Your task to perform on an android device: open wifi settings Image 0: 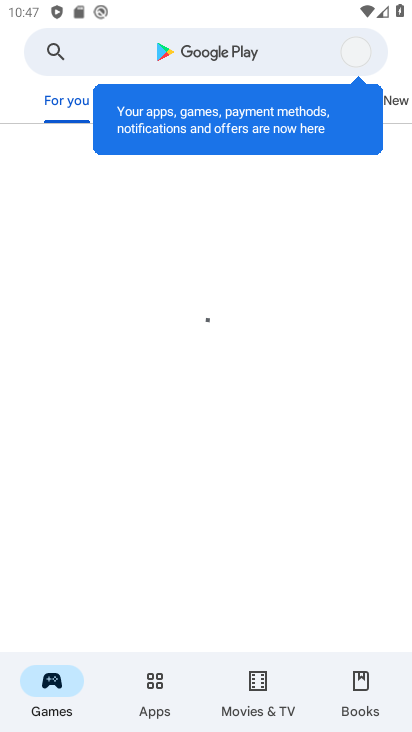
Step 0: press home button
Your task to perform on an android device: open wifi settings Image 1: 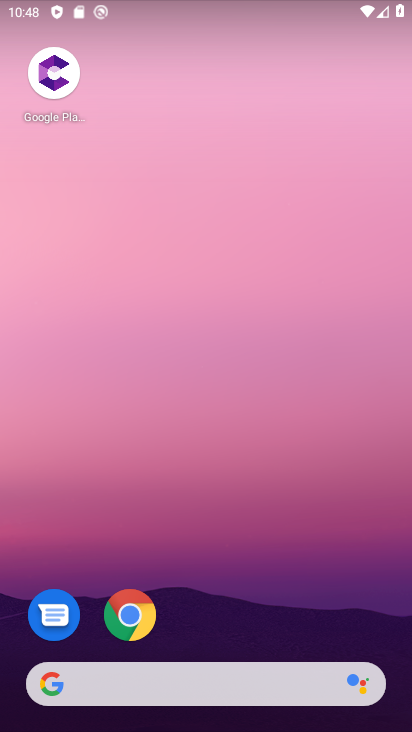
Step 1: drag from (213, 636) to (236, 166)
Your task to perform on an android device: open wifi settings Image 2: 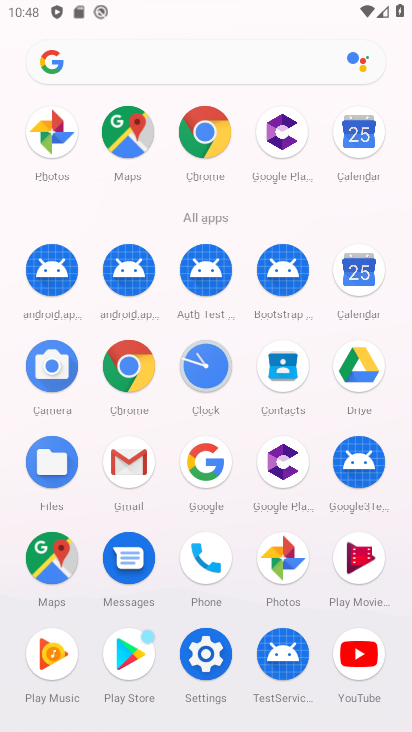
Step 2: click (214, 648)
Your task to perform on an android device: open wifi settings Image 3: 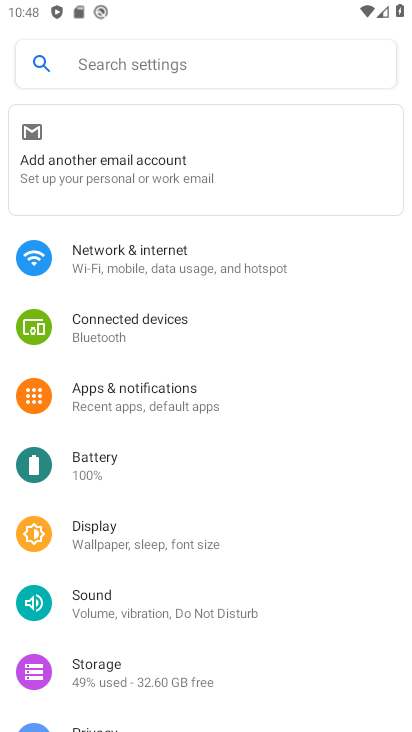
Step 3: click (201, 273)
Your task to perform on an android device: open wifi settings Image 4: 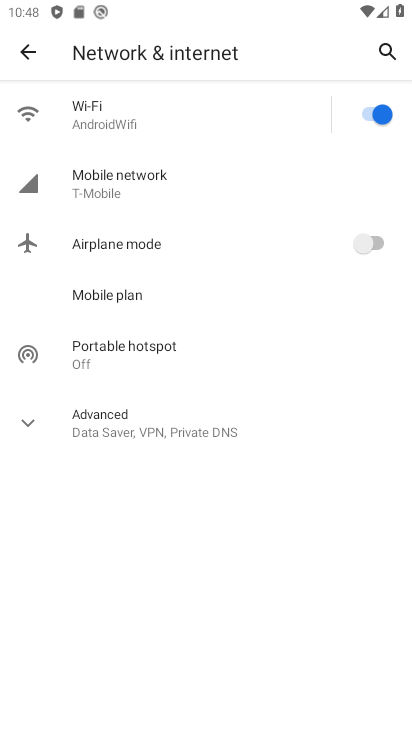
Step 4: click (213, 114)
Your task to perform on an android device: open wifi settings Image 5: 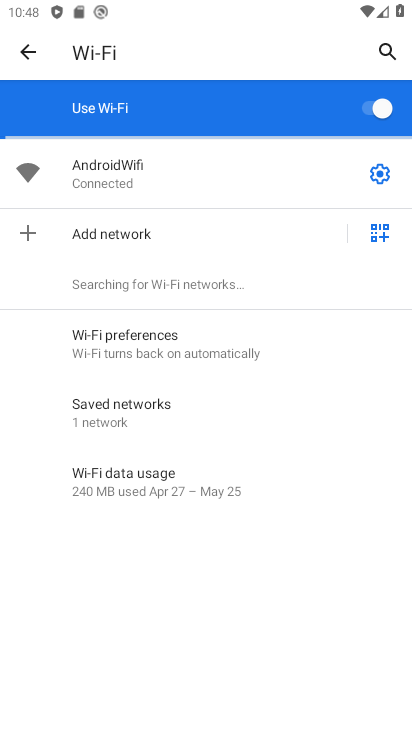
Step 5: task complete